Your task to perform on an android device: What's the weather today? Image 0: 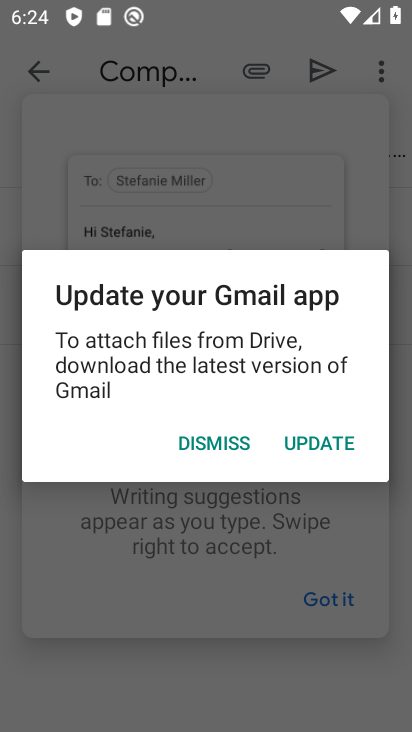
Step 0: click (230, 438)
Your task to perform on an android device: What's the weather today? Image 1: 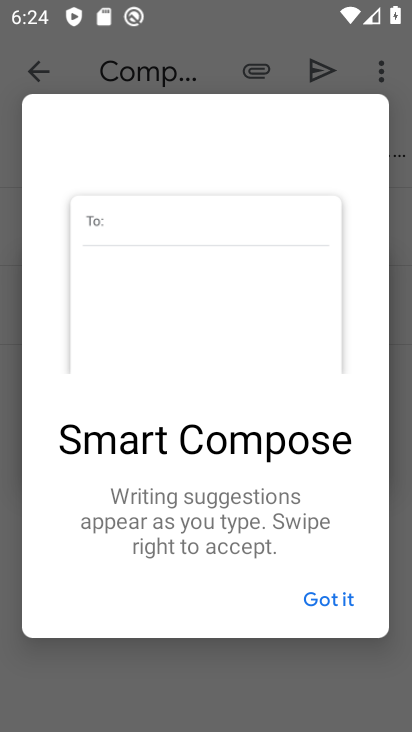
Step 1: press home button
Your task to perform on an android device: What's the weather today? Image 2: 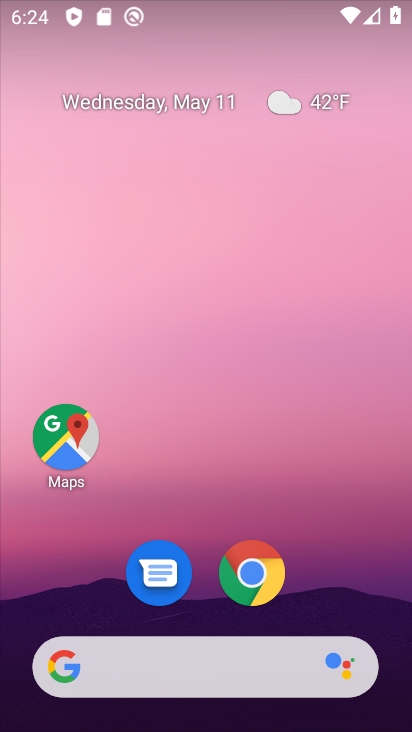
Step 2: drag from (317, 490) to (286, 109)
Your task to perform on an android device: What's the weather today? Image 3: 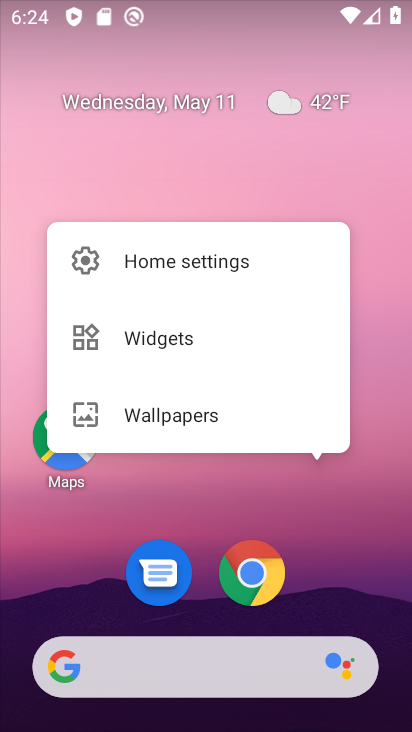
Step 3: click (310, 523)
Your task to perform on an android device: What's the weather today? Image 4: 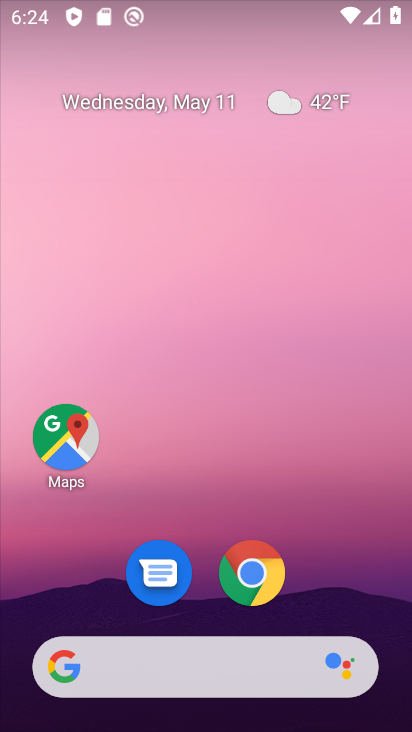
Step 4: drag from (305, 345) to (285, 84)
Your task to perform on an android device: What's the weather today? Image 5: 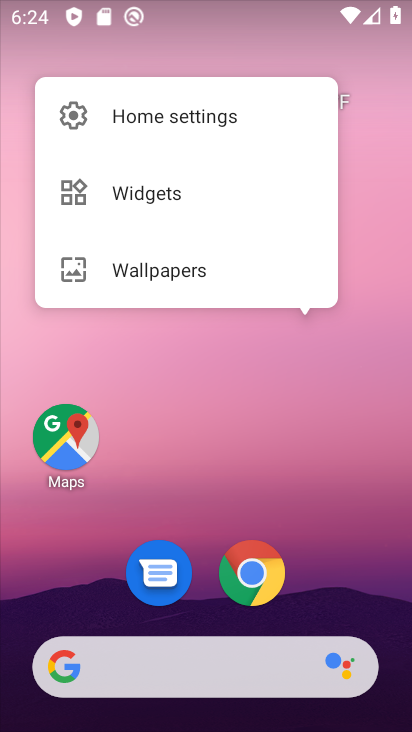
Step 5: click (306, 500)
Your task to perform on an android device: What's the weather today? Image 6: 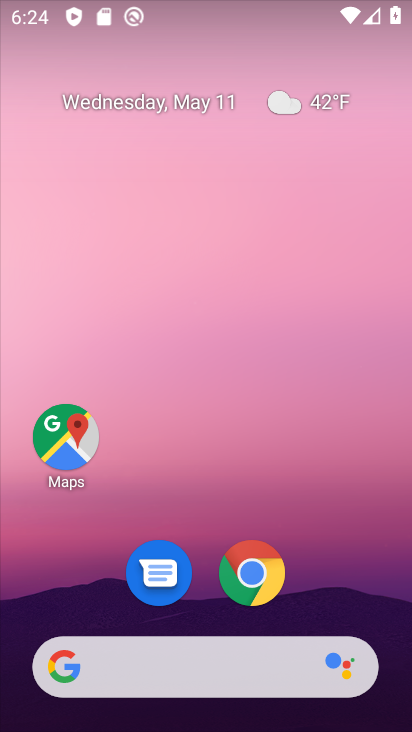
Step 6: drag from (292, 279) to (285, 142)
Your task to perform on an android device: What's the weather today? Image 7: 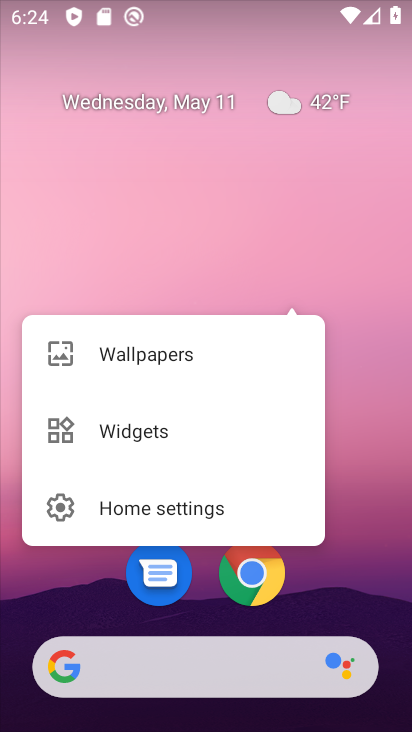
Step 7: click (363, 461)
Your task to perform on an android device: What's the weather today? Image 8: 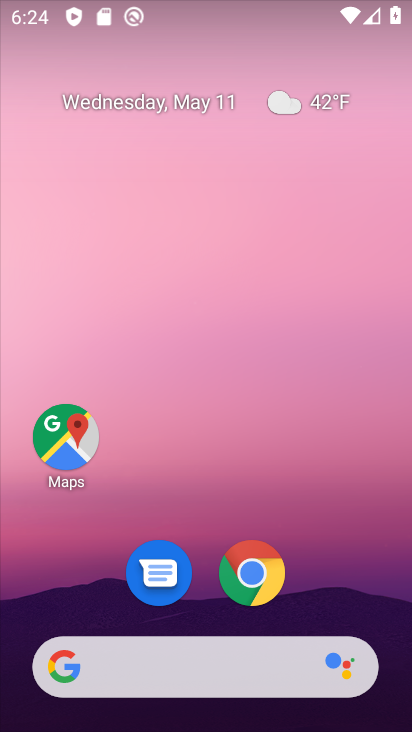
Step 8: click (321, 50)
Your task to perform on an android device: What's the weather today? Image 9: 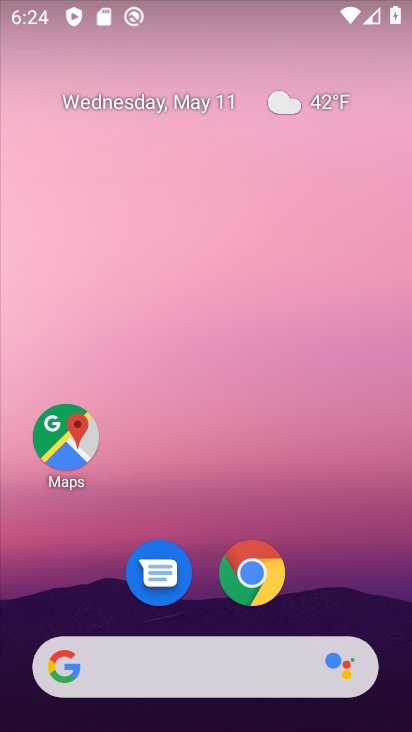
Step 9: drag from (219, 414) to (227, 15)
Your task to perform on an android device: What's the weather today? Image 10: 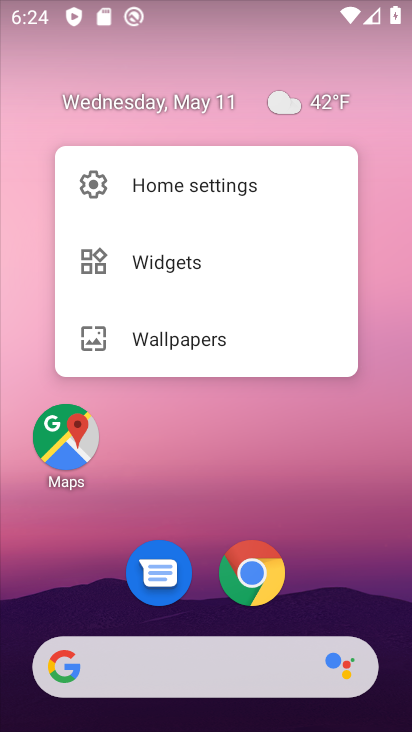
Step 10: click (319, 465)
Your task to perform on an android device: What's the weather today? Image 11: 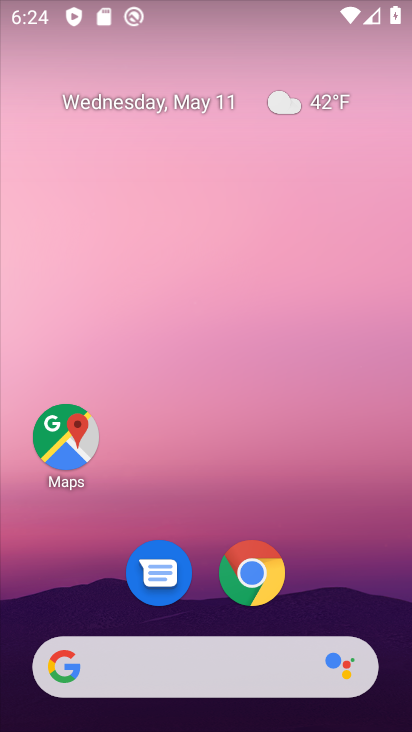
Step 11: drag from (297, 406) to (266, 134)
Your task to perform on an android device: What's the weather today? Image 12: 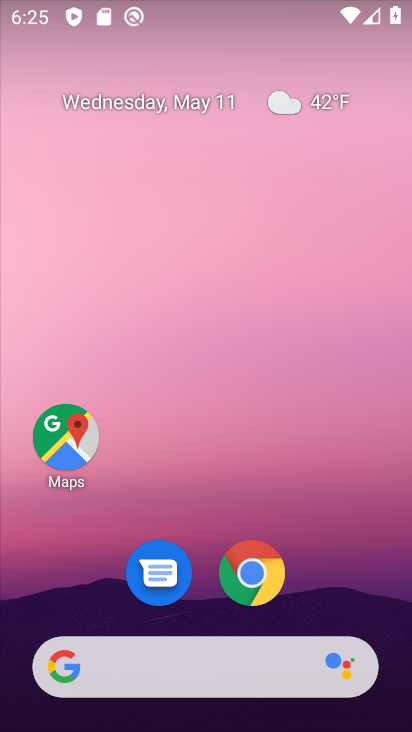
Step 12: drag from (304, 543) to (327, 87)
Your task to perform on an android device: What's the weather today? Image 13: 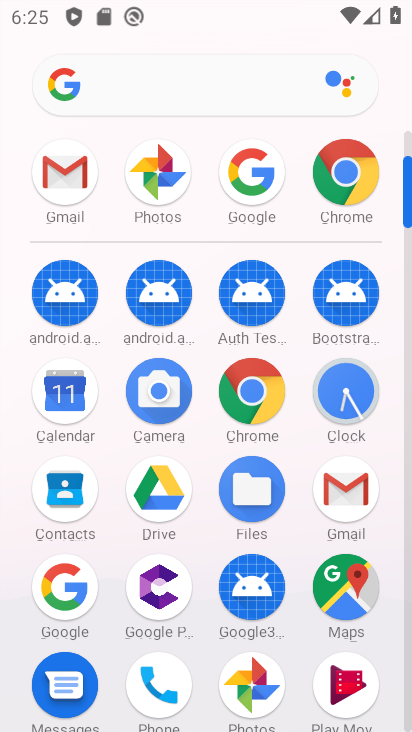
Step 13: click (253, 215)
Your task to perform on an android device: What's the weather today? Image 14: 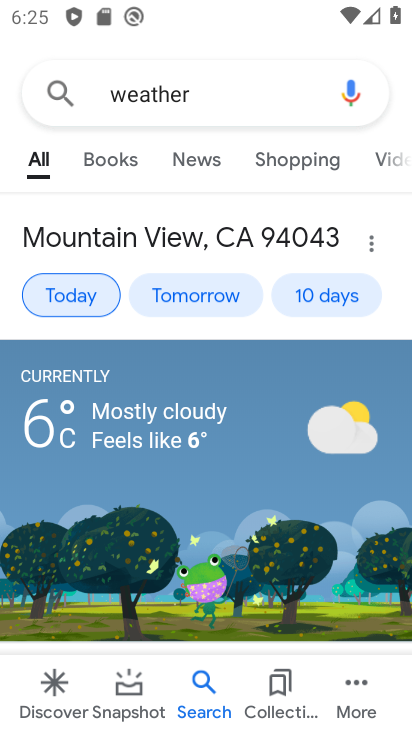
Step 14: task complete